Your task to perform on an android device: turn off location history Image 0: 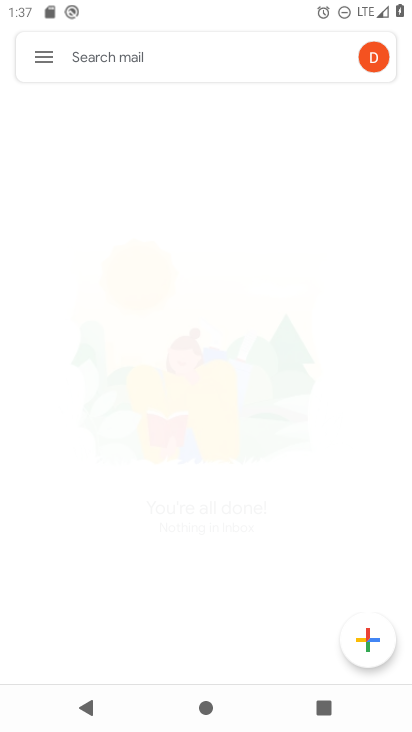
Step 0: drag from (392, 691) to (341, 220)
Your task to perform on an android device: turn off location history Image 1: 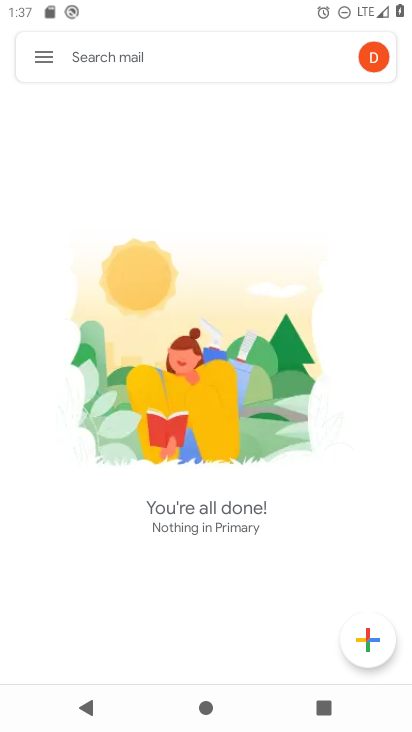
Step 1: press home button
Your task to perform on an android device: turn off location history Image 2: 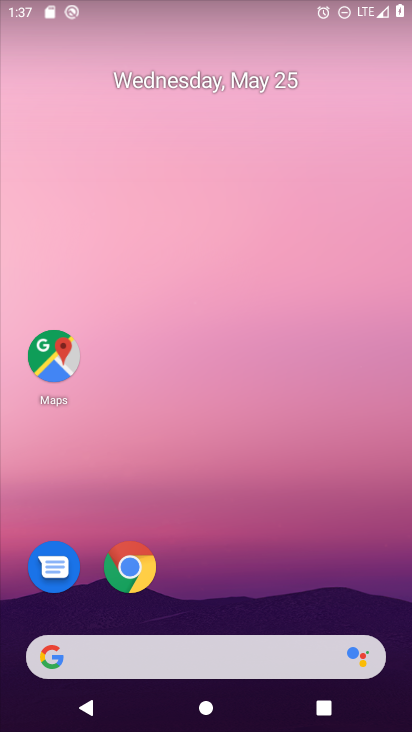
Step 2: drag from (368, 290) to (359, 230)
Your task to perform on an android device: turn off location history Image 3: 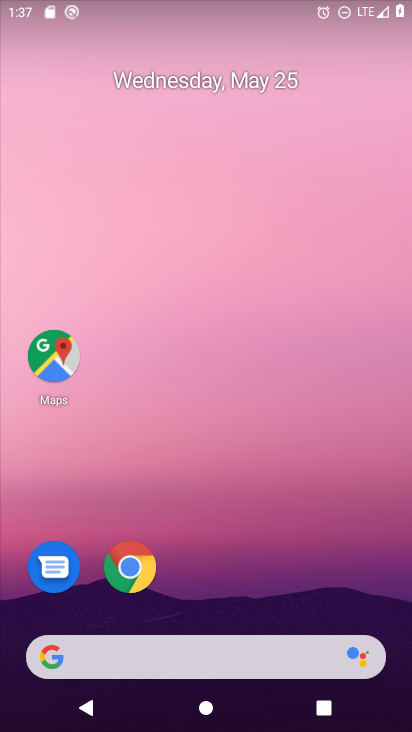
Step 3: drag from (396, 691) to (375, 225)
Your task to perform on an android device: turn off location history Image 4: 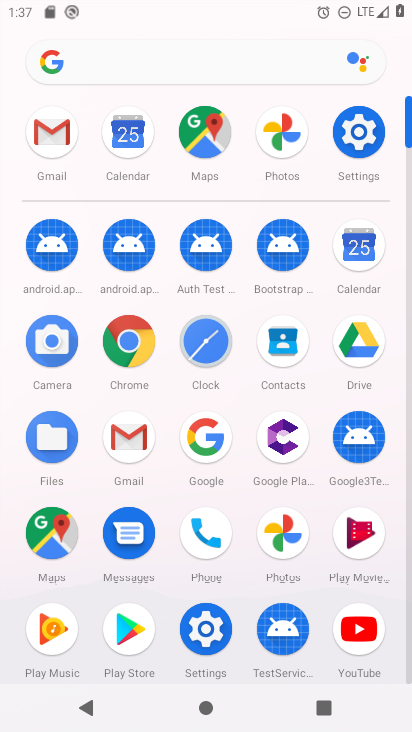
Step 4: click (348, 139)
Your task to perform on an android device: turn off location history Image 5: 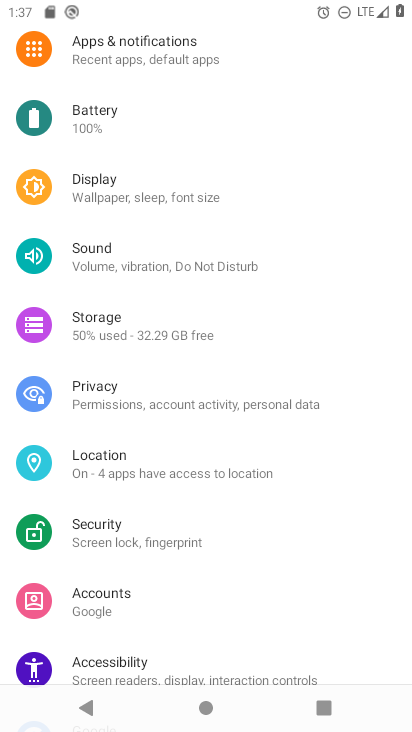
Step 5: click (95, 463)
Your task to perform on an android device: turn off location history Image 6: 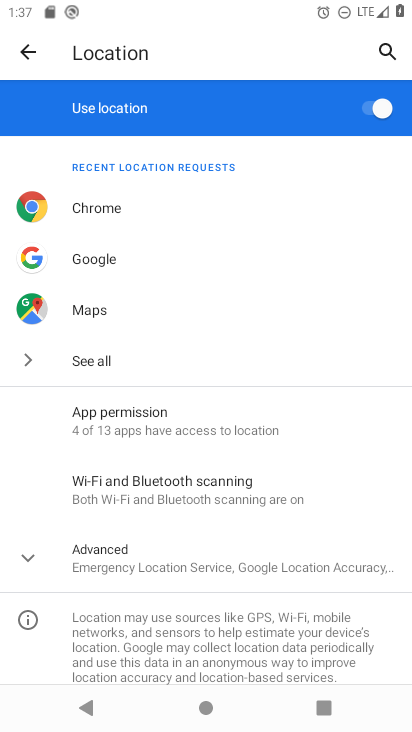
Step 6: drag from (373, 627) to (383, 300)
Your task to perform on an android device: turn off location history Image 7: 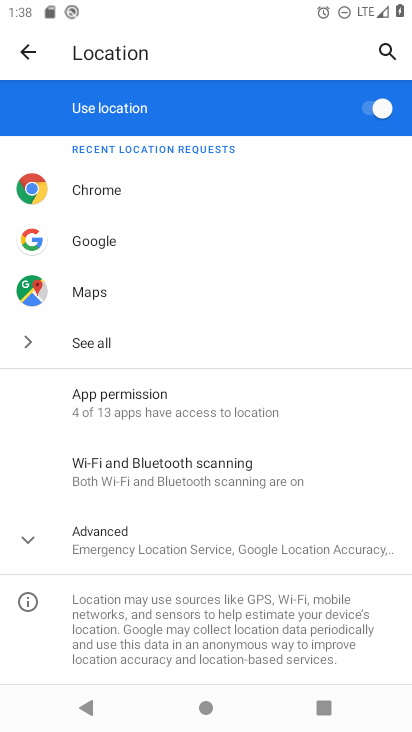
Step 7: click (25, 538)
Your task to perform on an android device: turn off location history Image 8: 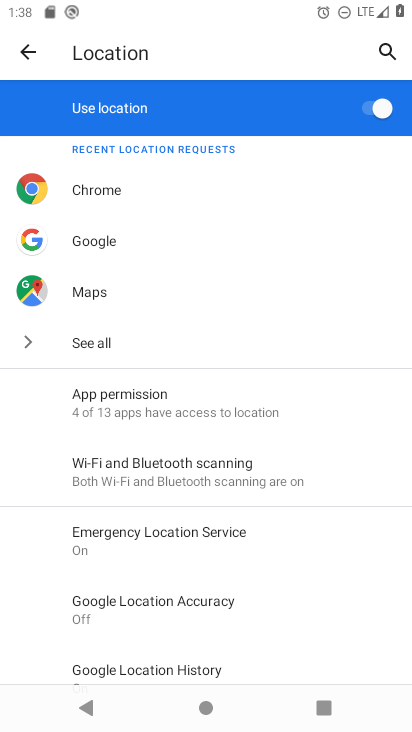
Step 8: drag from (319, 540) to (337, 285)
Your task to perform on an android device: turn off location history Image 9: 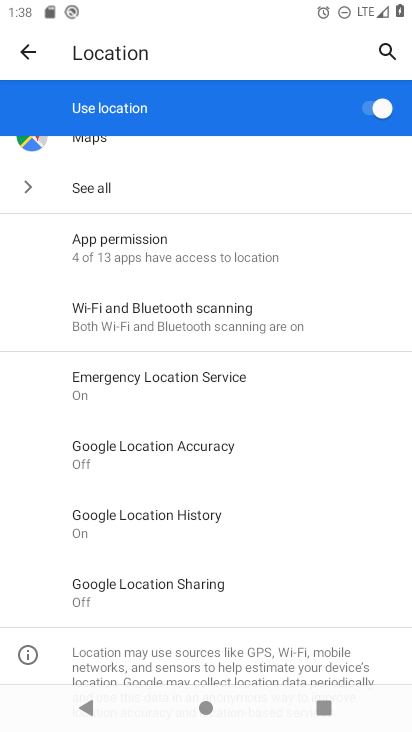
Step 9: click (119, 522)
Your task to perform on an android device: turn off location history Image 10: 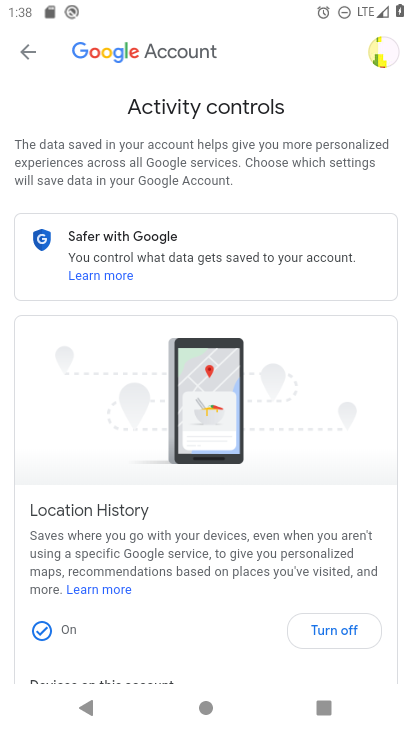
Step 10: click (336, 634)
Your task to perform on an android device: turn off location history Image 11: 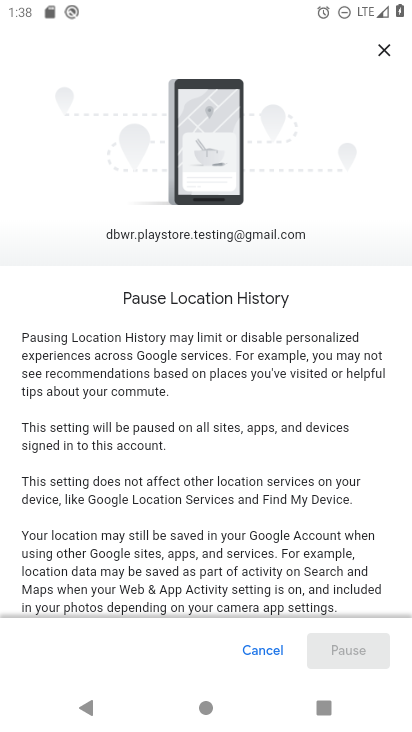
Step 11: drag from (177, 568) to (218, 181)
Your task to perform on an android device: turn off location history Image 12: 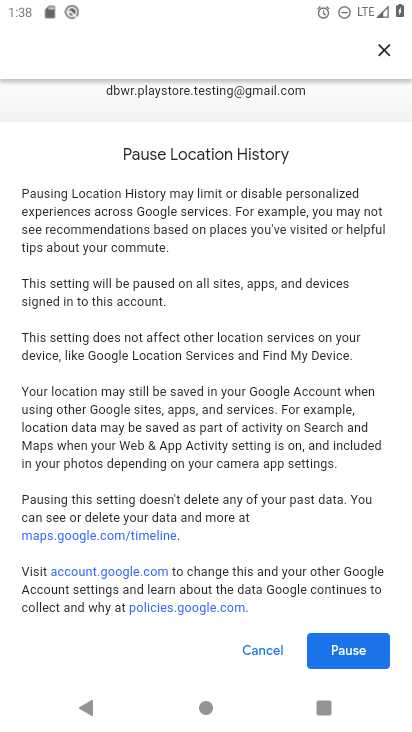
Step 12: drag from (201, 573) to (218, 268)
Your task to perform on an android device: turn off location history Image 13: 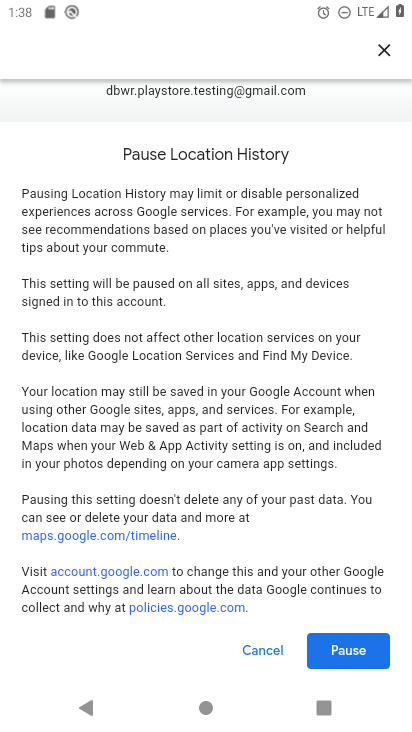
Step 13: click (324, 642)
Your task to perform on an android device: turn off location history Image 14: 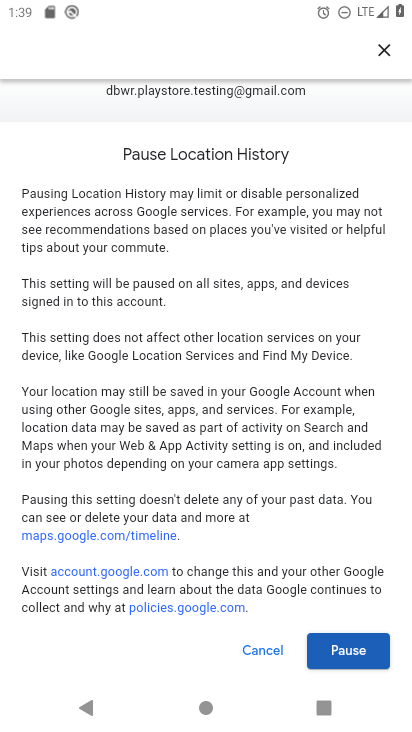
Step 14: click (331, 646)
Your task to perform on an android device: turn off location history Image 15: 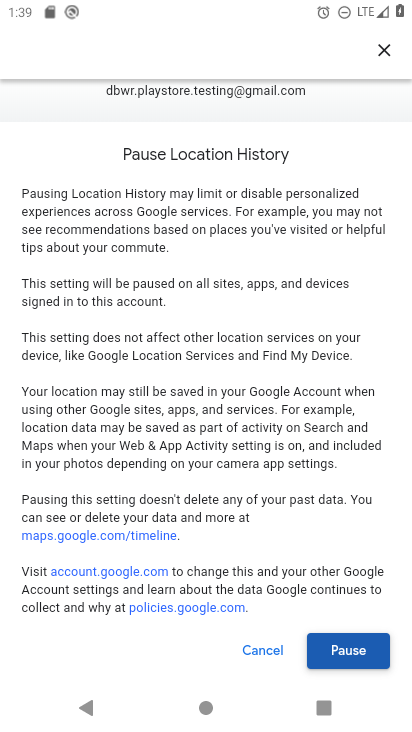
Step 15: task complete